Your task to perform on an android device: Show the shopping cart on newegg.com. Search for "usb-c" on newegg.com, select the first entry, add it to the cart, then select checkout. Image 0: 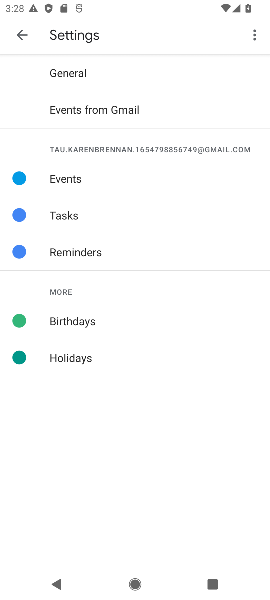
Step 0: press home button
Your task to perform on an android device: Show the shopping cart on newegg.com. Search for "usb-c" on newegg.com, select the first entry, add it to the cart, then select checkout. Image 1: 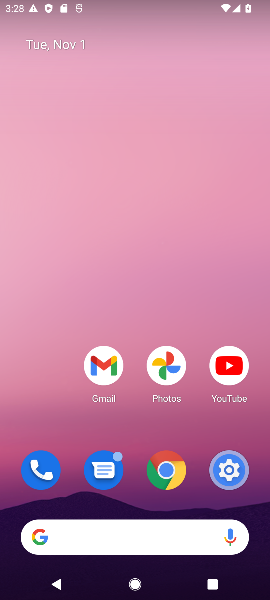
Step 1: click (164, 469)
Your task to perform on an android device: Show the shopping cart on newegg.com. Search for "usb-c" on newegg.com, select the first entry, add it to the cart, then select checkout. Image 2: 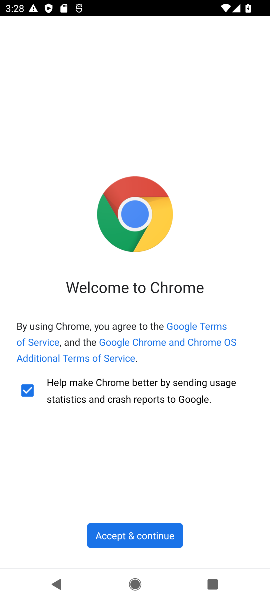
Step 2: click (127, 536)
Your task to perform on an android device: Show the shopping cart on newegg.com. Search for "usb-c" on newegg.com, select the first entry, add it to the cart, then select checkout. Image 3: 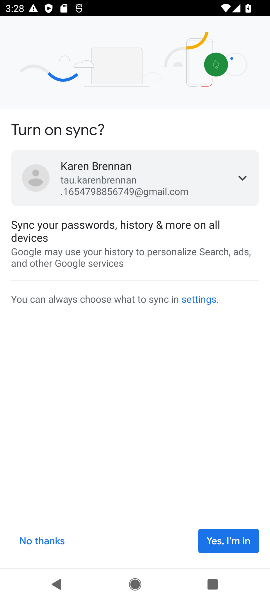
Step 3: click (48, 539)
Your task to perform on an android device: Show the shopping cart on newegg.com. Search for "usb-c" on newegg.com, select the first entry, add it to the cart, then select checkout. Image 4: 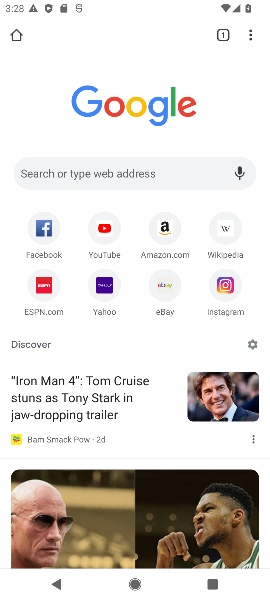
Step 4: click (106, 179)
Your task to perform on an android device: Show the shopping cart on newegg.com. Search for "usb-c" on newegg.com, select the first entry, add it to the cart, then select checkout. Image 5: 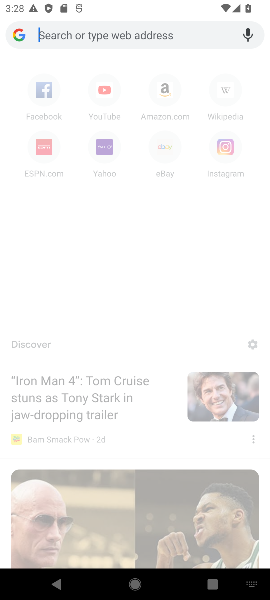
Step 5: type "newegg"
Your task to perform on an android device: Show the shopping cart on newegg.com. Search for "usb-c" on newegg.com, select the first entry, add it to the cart, then select checkout. Image 6: 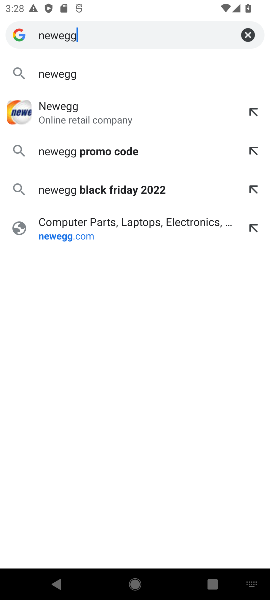
Step 6: press enter
Your task to perform on an android device: Show the shopping cart on newegg.com. Search for "usb-c" on newegg.com, select the first entry, add it to the cart, then select checkout. Image 7: 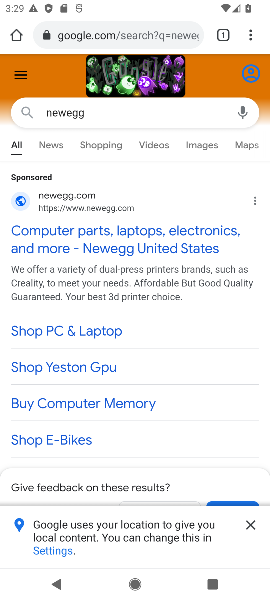
Step 7: click (75, 205)
Your task to perform on an android device: Show the shopping cart on newegg.com. Search for "usb-c" on newegg.com, select the first entry, add it to the cart, then select checkout. Image 8: 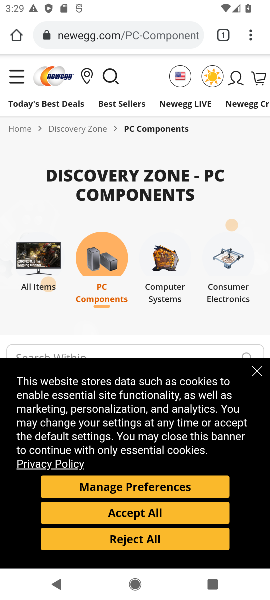
Step 8: click (258, 73)
Your task to perform on an android device: Show the shopping cart on newegg.com. Search for "usb-c" on newegg.com, select the first entry, add it to the cart, then select checkout. Image 9: 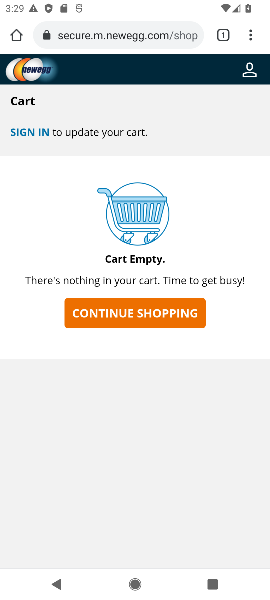
Step 9: click (182, 321)
Your task to perform on an android device: Show the shopping cart on newegg.com. Search for "usb-c" on newegg.com, select the first entry, add it to the cart, then select checkout. Image 10: 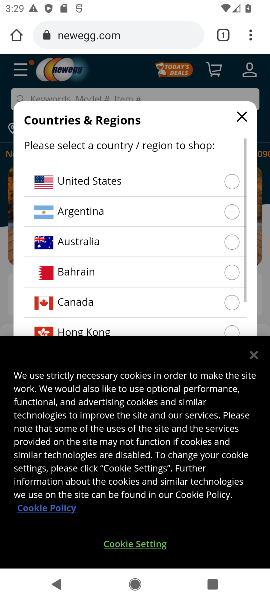
Step 10: click (241, 116)
Your task to perform on an android device: Show the shopping cart on newegg.com. Search for "usb-c" on newegg.com, select the first entry, add it to the cart, then select checkout. Image 11: 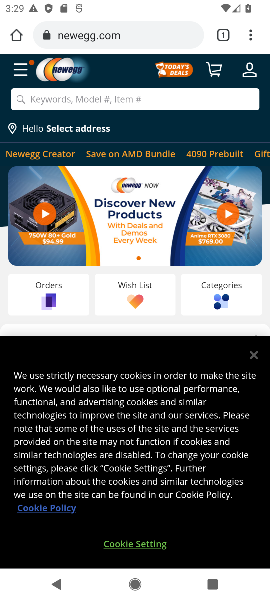
Step 11: click (121, 98)
Your task to perform on an android device: Show the shopping cart on newegg.com. Search for "usb-c" on newegg.com, select the first entry, add it to the cart, then select checkout. Image 12: 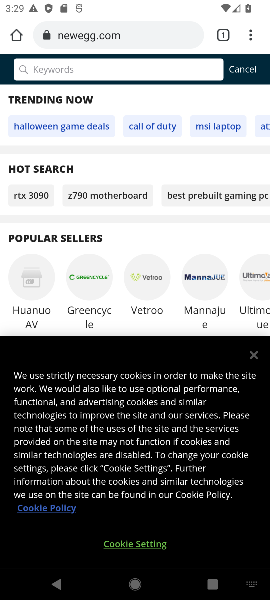
Step 12: type "usb-c"
Your task to perform on an android device: Show the shopping cart on newegg.com. Search for "usb-c" on newegg.com, select the first entry, add it to the cart, then select checkout. Image 13: 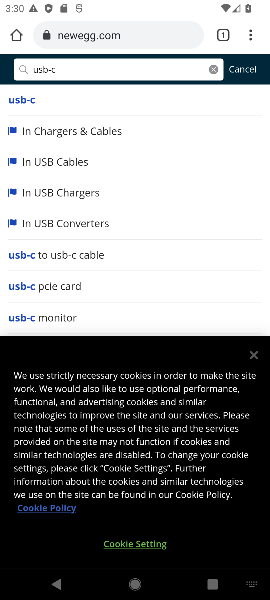
Step 13: press enter
Your task to perform on an android device: Show the shopping cart on newegg.com. Search for "usb-c" on newegg.com, select the first entry, add it to the cart, then select checkout. Image 14: 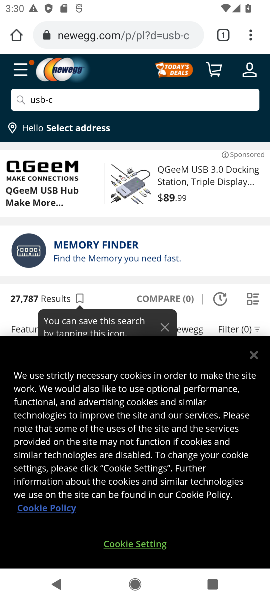
Step 14: click (257, 373)
Your task to perform on an android device: Show the shopping cart on newegg.com. Search for "usb-c" on newegg.com, select the first entry, add it to the cart, then select checkout. Image 15: 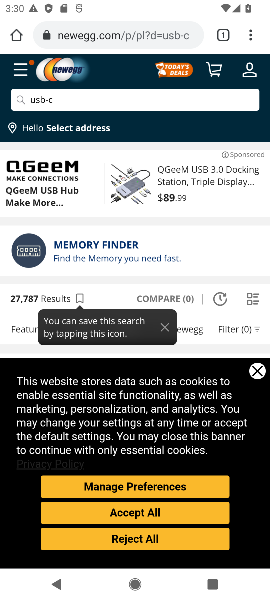
Step 15: click (259, 373)
Your task to perform on an android device: Show the shopping cart on newegg.com. Search for "usb-c" on newegg.com, select the first entry, add it to the cart, then select checkout. Image 16: 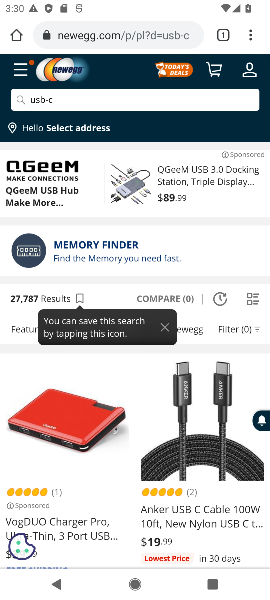
Step 16: drag from (127, 435) to (119, 270)
Your task to perform on an android device: Show the shopping cart on newegg.com. Search for "usb-c" on newegg.com, select the first entry, add it to the cart, then select checkout. Image 17: 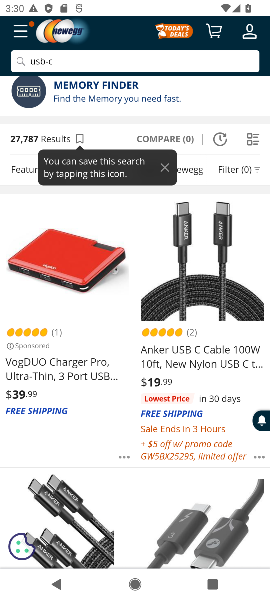
Step 17: click (39, 277)
Your task to perform on an android device: Show the shopping cart on newegg.com. Search for "usb-c" on newegg.com, select the first entry, add it to the cart, then select checkout. Image 18: 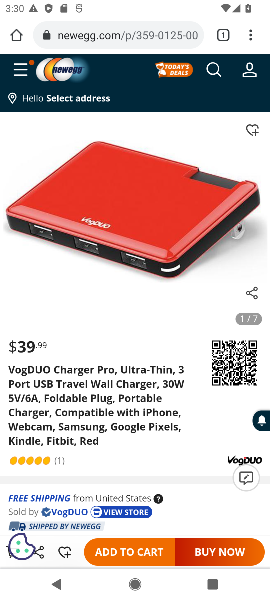
Step 18: click (135, 547)
Your task to perform on an android device: Show the shopping cart on newegg.com. Search for "usb-c" on newegg.com, select the first entry, add it to the cart, then select checkout. Image 19: 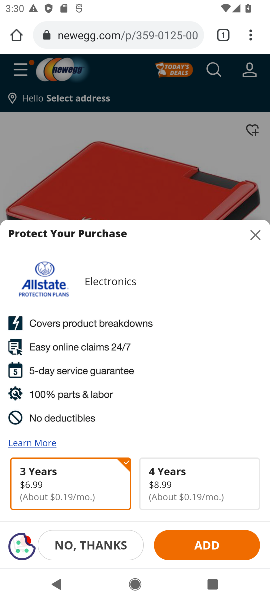
Step 19: click (103, 543)
Your task to perform on an android device: Show the shopping cart on newegg.com. Search for "usb-c" on newegg.com, select the first entry, add it to the cart, then select checkout. Image 20: 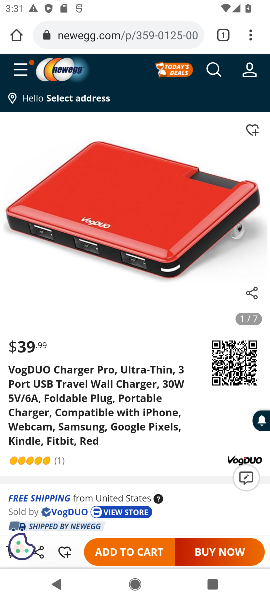
Step 20: click (22, 546)
Your task to perform on an android device: Show the shopping cart on newegg.com. Search for "usb-c" on newegg.com, select the first entry, add it to the cart, then select checkout. Image 21: 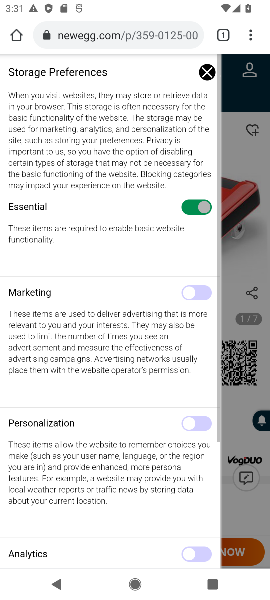
Step 21: click (241, 495)
Your task to perform on an android device: Show the shopping cart on newegg.com. Search for "usb-c" on newegg.com, select the first entry, add it to the cart, then select checkout. Image 22: 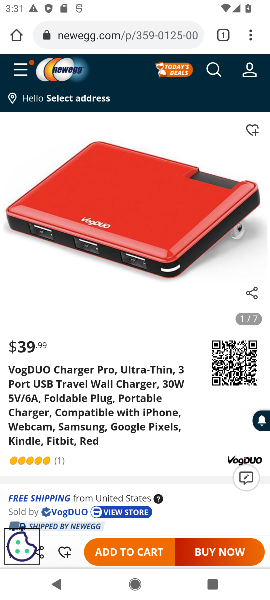
Step 22: drag from (213, 457) to (185, 277)
Your task to perform on an android device: Show the shopping cart on newegg.com. Search for "usb-c" on newegg.com, select the first entry, add it to the cart, then select checkout. Image 23: 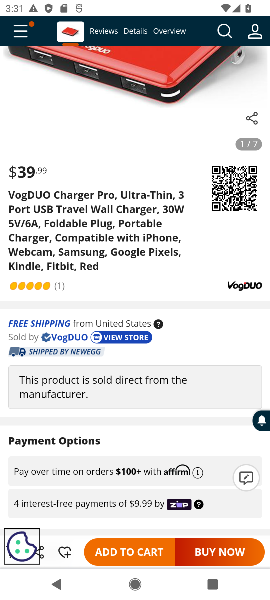
Step 23: drag from (179, 423) to (170, 598)
Your task to perform on an android device: Show the shopping cart on newegg.com. Search for "usb-c" on newegg.com, select the first entry, add it to the cart, then select checkout. Image 24: 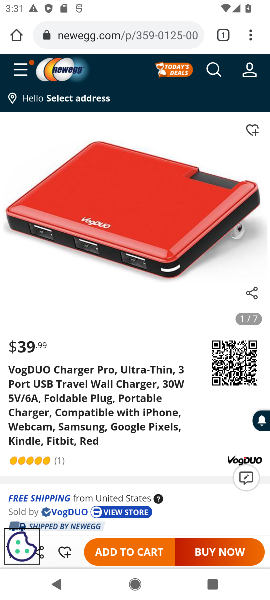
Step 24: click (120, 556)
Your task to perform on an android device: Show the shopping cart on newegg.com. Search for "usb-c" on newegg.com, select the first entry, add it to the cart, then select checkout. Image 25: 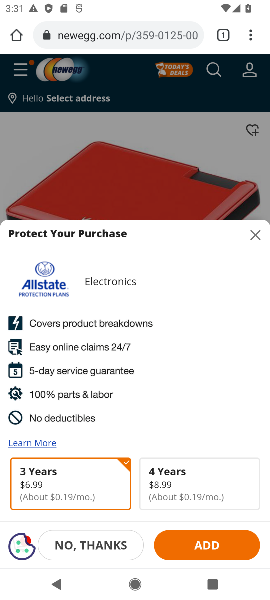
Step 25: click (29, 538)
Your task to perform on an android device: Show the shopping cart on newegg.com. Search for "usb-c" on newegg.com, select the first entry, add it to the cart, then select checkout. Image 26: 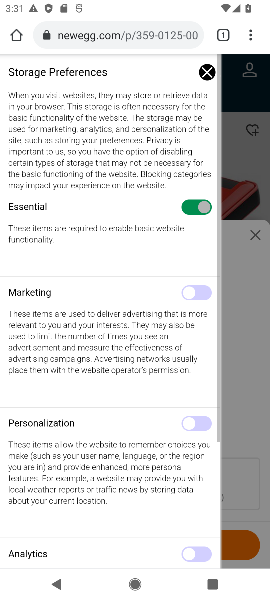
Step 26: click (206, 69)
Your task to perform on an android device: Show the shopping cart on newegg.com. Search for "usb-c" on newegg.com, select the first entry, add it to the cart, then select checkout. Image 27: 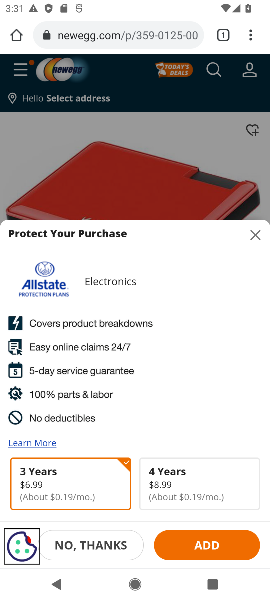
Step 27: click (251, 72)
Your task to perform on an android device: Show the shopping cart on newegg.com. Search for "usb-c" on newegg.com, select the first entry, add it to the cart, then select checkout. Image 28: 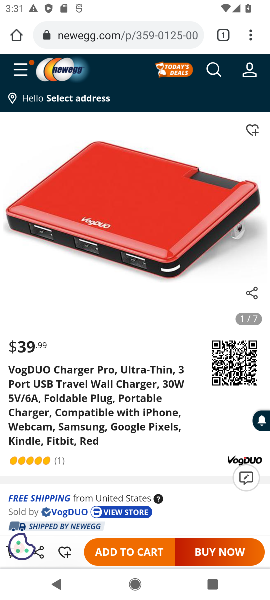
Step 28: click (251, 72)
Your task to perform on an android device: Show the shopping cart on newegg.com. Search for "usb-c" on newegg.com, select the first entry, add it to the cart, then select checkout. Image 29: 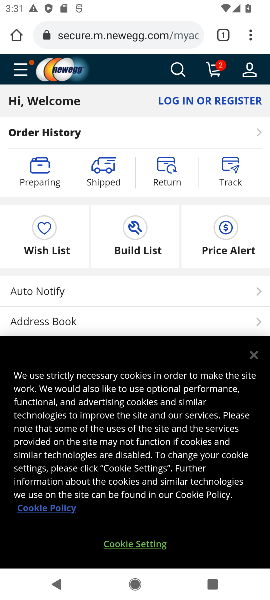
Step 29: click (218, 64)
Your task to perform on an android device: Show the shopping cart on newegg.com. Search for "usb-c" on newegg.com, select the first entry, add it to the cart, then select checkout. Image 30: 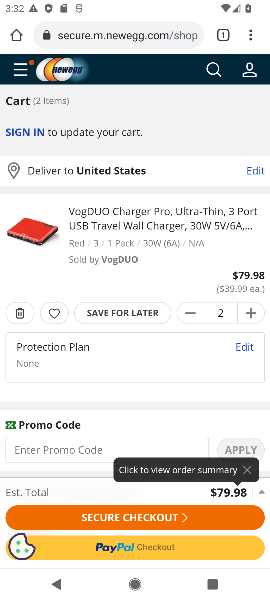
Step 30: click (190, 313)
Your task to perform on an android device: Show the shopping cart on newegg.com. Search for "usb-c" on newegg.com, select the first entry, add it to the cart, then select checkout. Image 31: 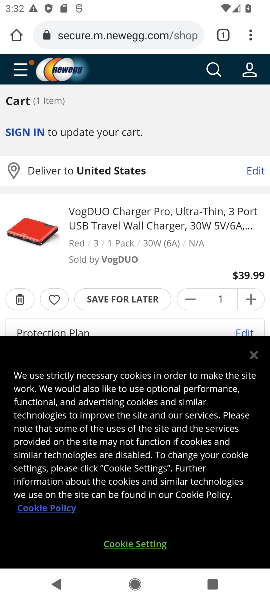
Step 31: click (253, 356)
Your task to perform on an android device: Show the shopping cart on newegg.com. Search for "usb-c" on newegg.com, select the first entry, add it to the cart, then select checkout. Image 32: 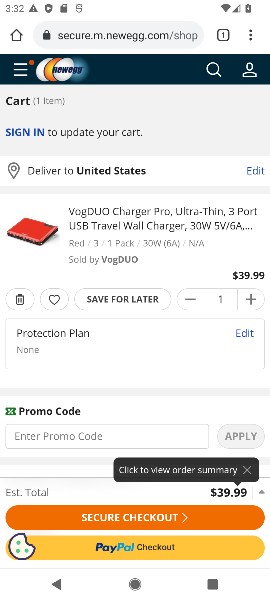
Step 32: click (136, 520)
Your task to perform on an android device: Show the shopping cart on newegg.com. Search for "usb-c" on newegg.com, select the first entry, add it to the cart, then select checkout. Image 33: 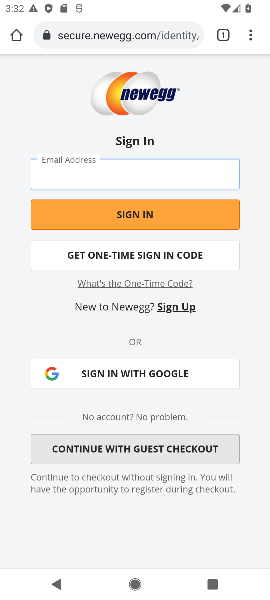
Step 33: task complete